Your task to perform on an android device: open chrome privacy settings Image 0: 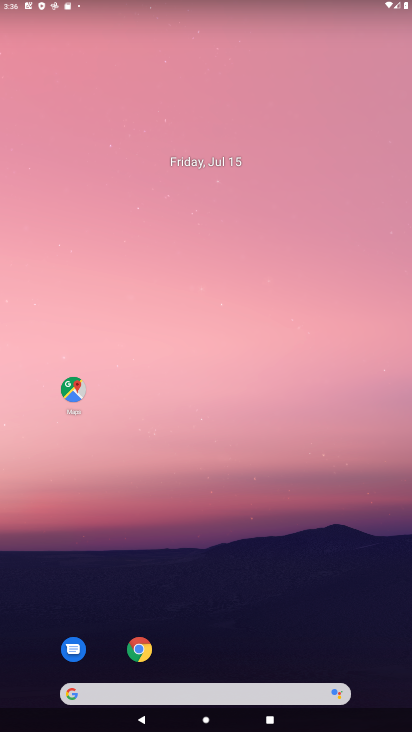
Step 0: drag from (255, 635) to (342, 74)
Your task to perform on an android device: open chrome privacy settings Image 1: 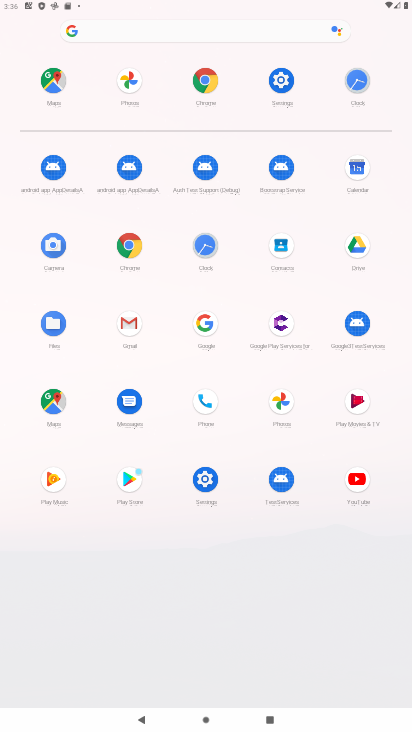
Step 1: click (275, 69)
Your task to perform on an android device: open chrome privacy settings Image 2: 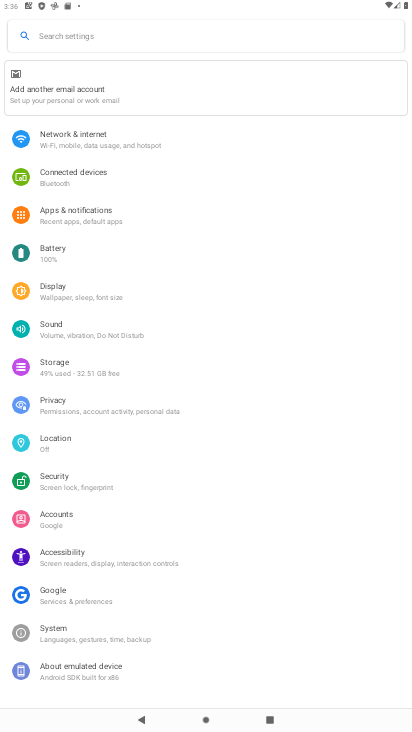
Step 2: press home button
Your task to perform on an android device: open chrome privacy settings Image 3: 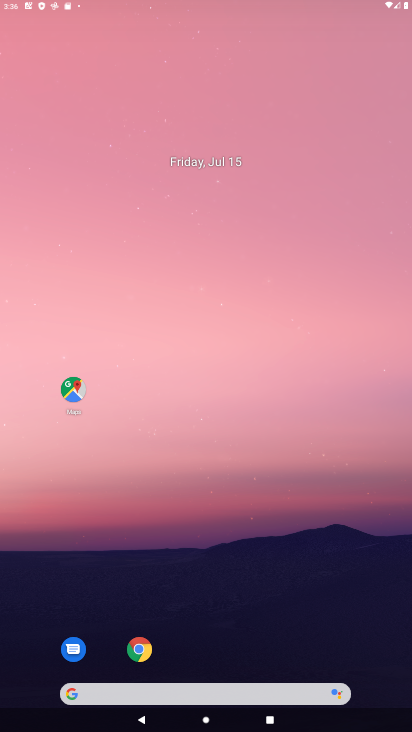
Step 3: drag from (302, 633) to (320, 64)
Your task to perform on an android device: open chrome privacy settings Image 4: 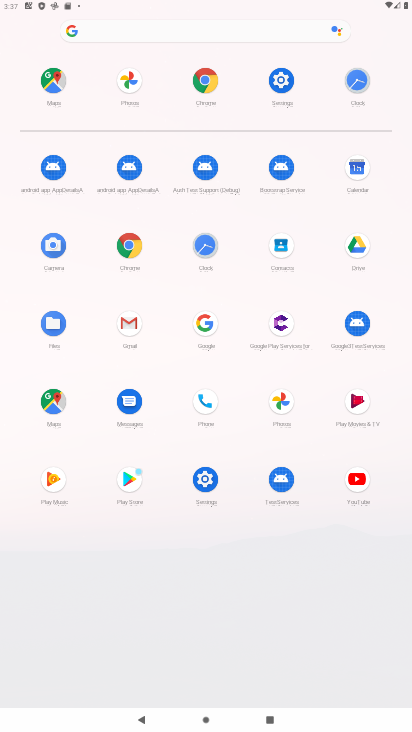
Step 4: click (127, 253)
Your task to perform on an android device: open chrome privacy settings Image 5: 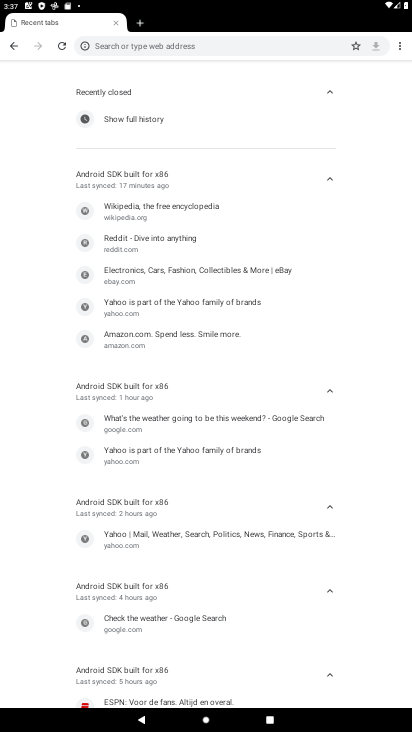
Step 5: drag from (405, 41) to (316, 210)
Your task to perform on an android device: open chrome privacy settings Image 6: 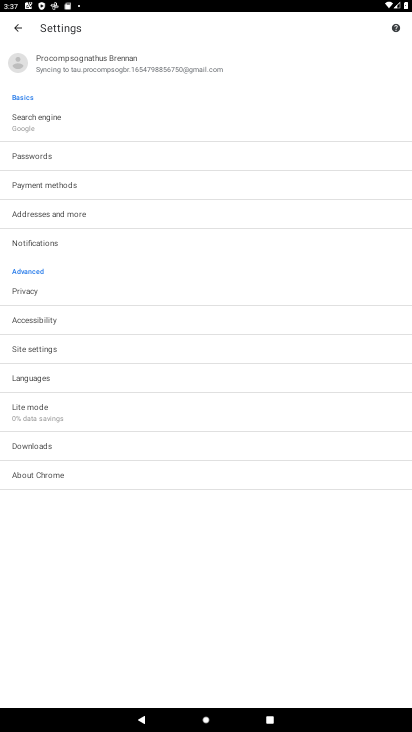
Step 6: click (44, 295)
Your task to perform on an android device: open chrome privacy settings Image 7: 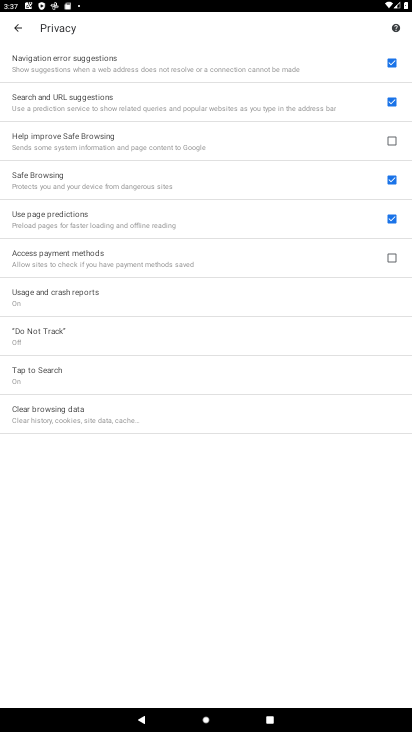
Step 7: task complete